Your task to perform on an android device: Open Android settings Image 0: 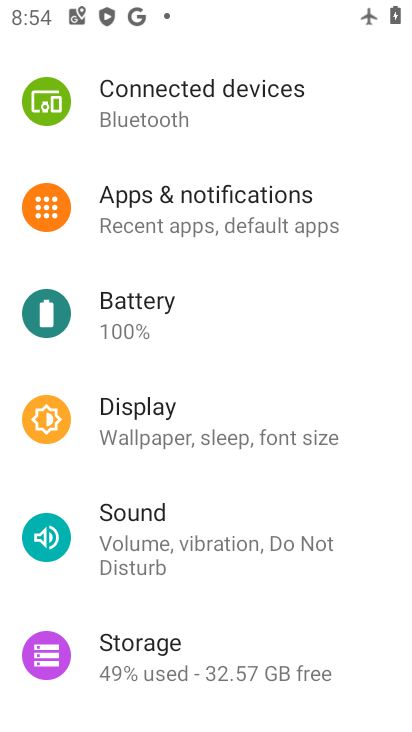
Step 0: drag from (227, 567) to (287, 121)
Your task to perform on an android device: Open Android settings Image 1: 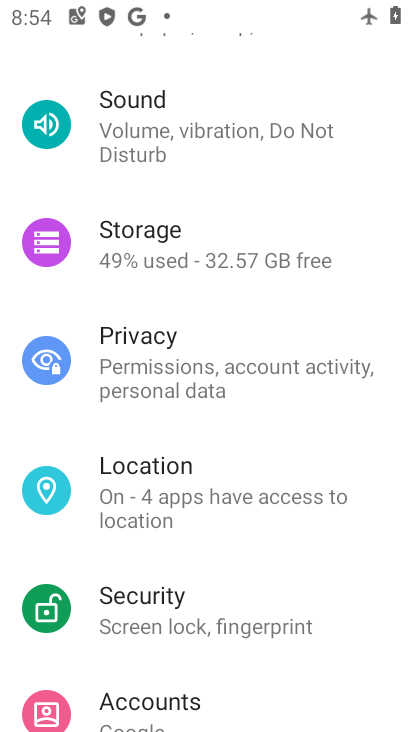
Step 1: drag from (200, 563) to (264, 147)
Your task to perform on an android device: Open Android settings Image 2: 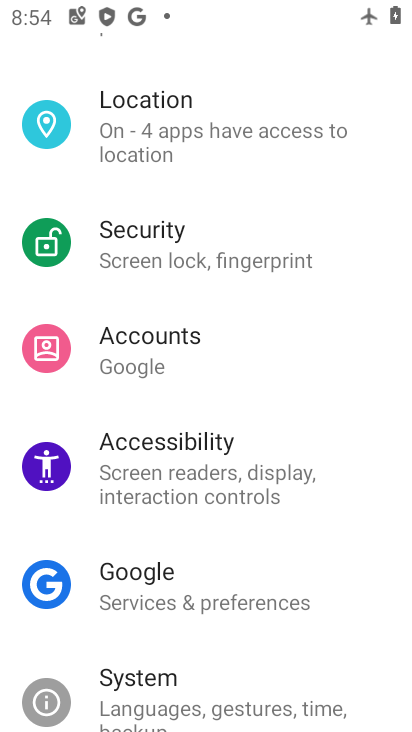
Step 2: drag from (240, 512) to (322, 43)
Your task to perform on an android device: Open Android settings Image 3: 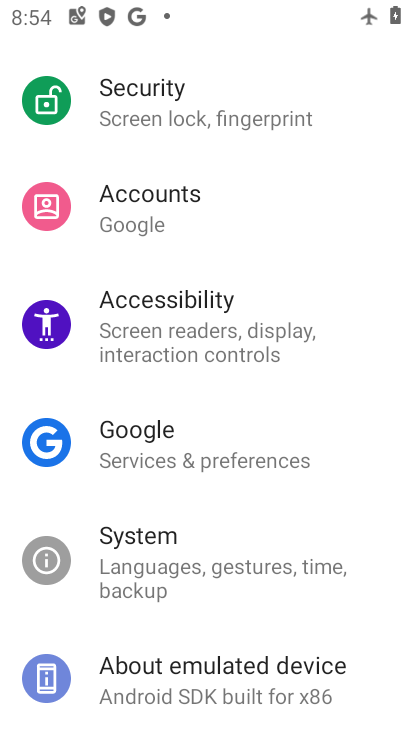
Step 3: click (160, 687)
Your task to perform on an android device: Open Android settings Image 4: 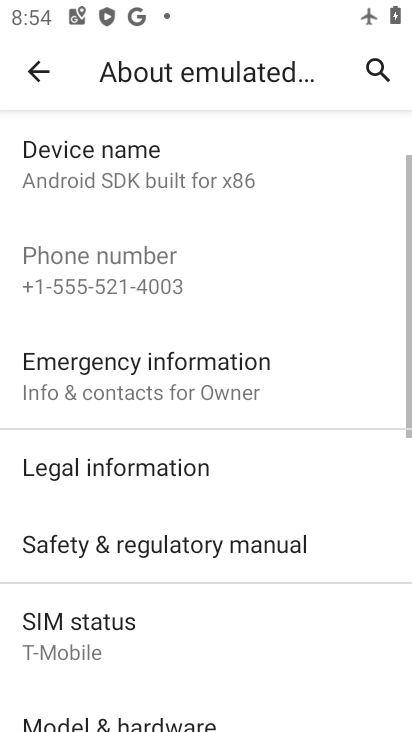
Step 4: drag from (160, 531) to (173, 250)
Your task to perform on an android device: Open Android settings Image 5: 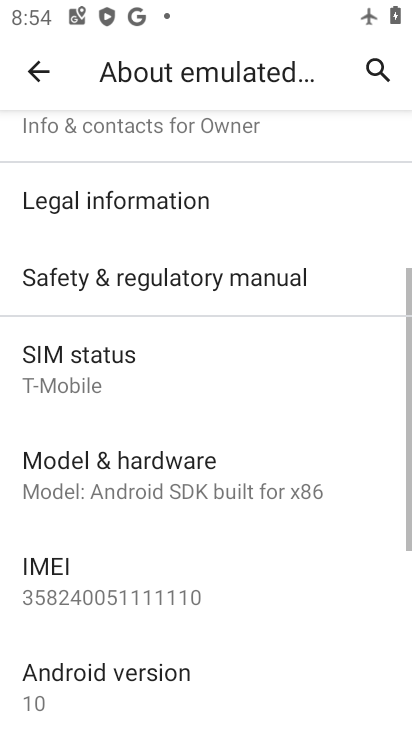
Step 5: click (127, 683)
Your task to perform on an android device: Open Android settings Image 6: 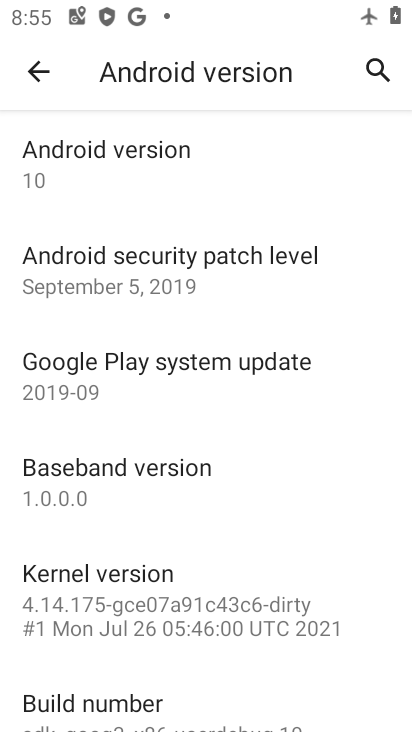
Step 6: click (132, 187)
Your task to perform on an android device: Open Android settings Image 7: 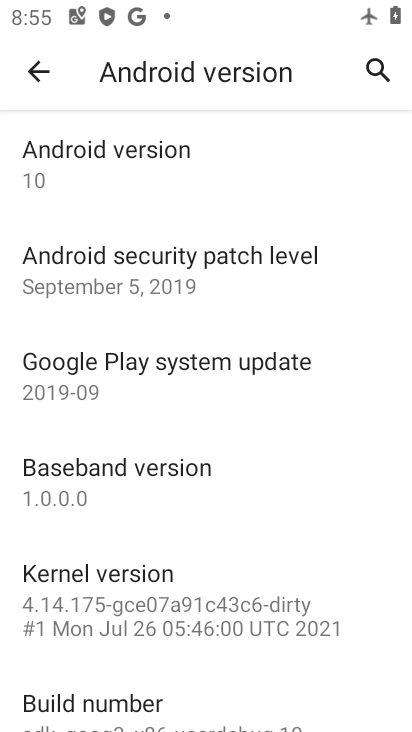
Step 7: task complete